Your task to perform on an android device: Go to Yahoo.com Image 0: 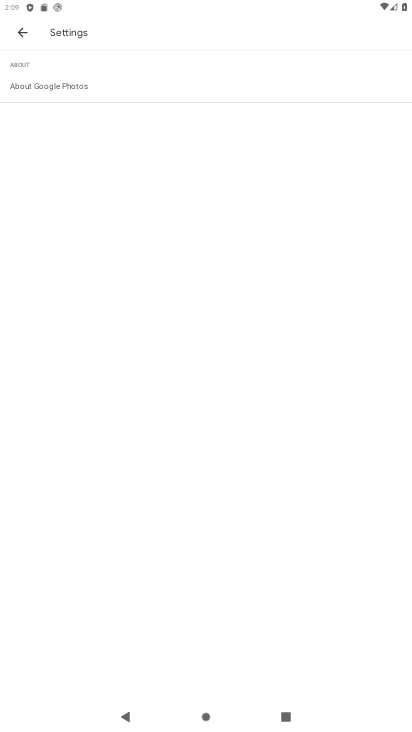
Step 0: press home button
Your task to perform on an android device: Go to Yahoo.com Image 1: 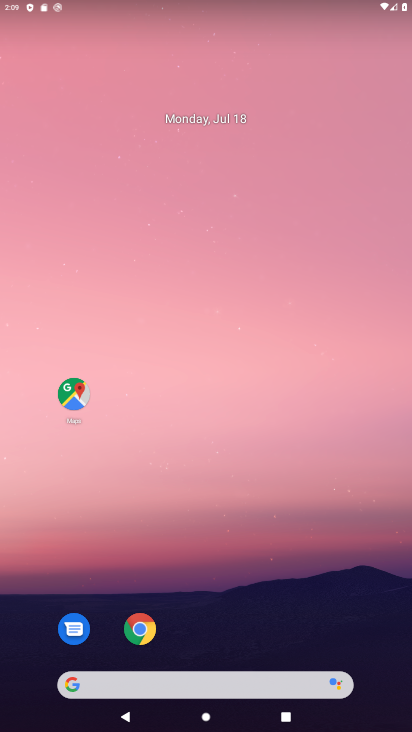
Step 1: click (146, 623)
Your task to perform on an android device: Go to Yahoo.com Image 2: 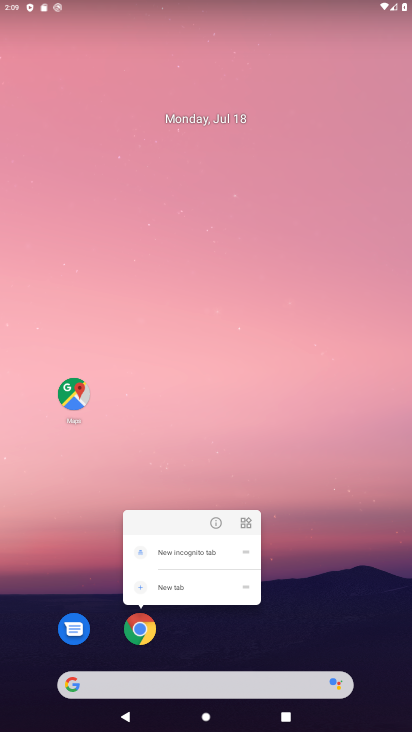
Step 2: click (132, 636)
Your task to perform on an android device: Go to Yahoo.com Image 3: 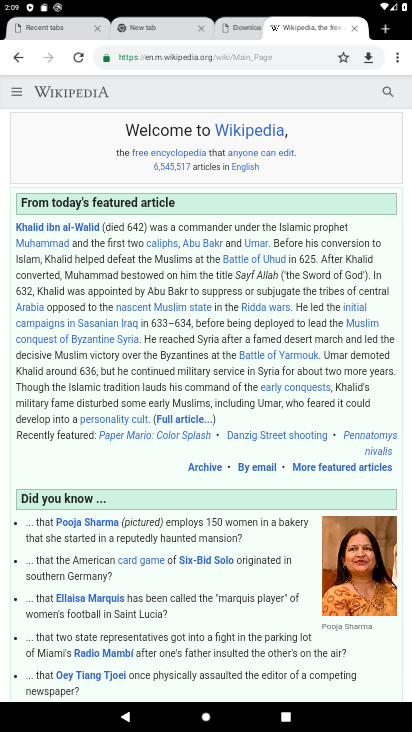
Step 3: click (386, 39)
Your task to perform on an android device: Go to Yahoo.com Image 4: 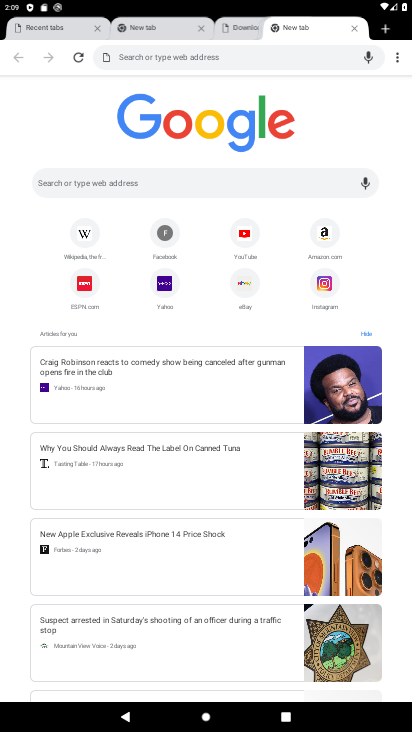
Step 4: click (177, 286)
Your task to perform on an android device: Go to Yahoo.com Image 5: 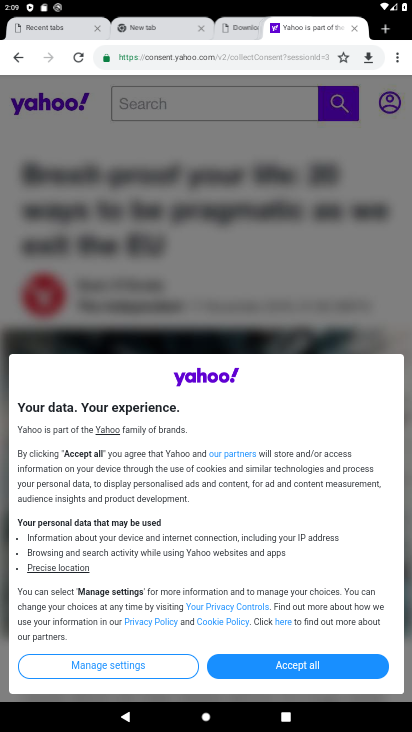
Step 5: task complete